Your task to perform on an android device: clear all cookies in the chrome app Image 0: 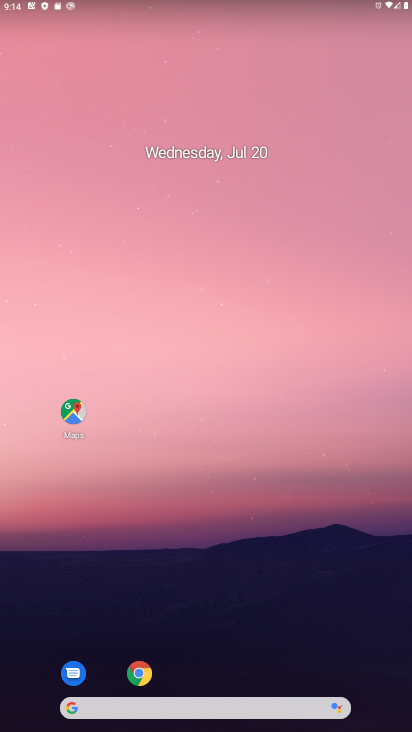
Step 0: drag from (247, 663) to (270, 136)
Your task to perform on an android device: clear all cookies in the chrome app Image 1: 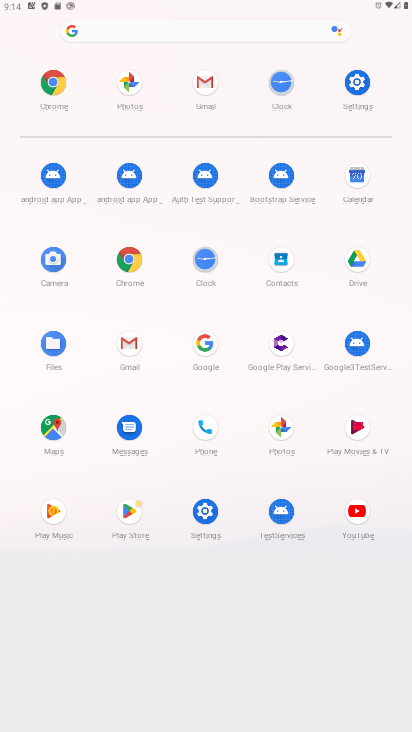
Step 1: click (129, 257)
Your task to perform on an android device: clear all cookies in the chrome app Image 2: 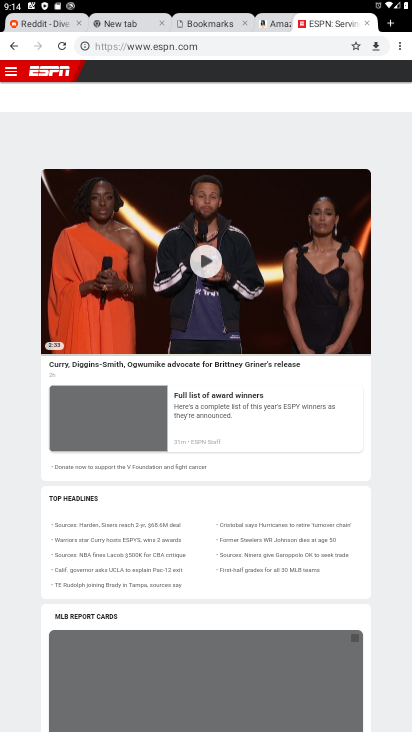
Step 2: click (399, 47)
Your task to perform on an android device: clear all cookies in the chrome app Image 3: 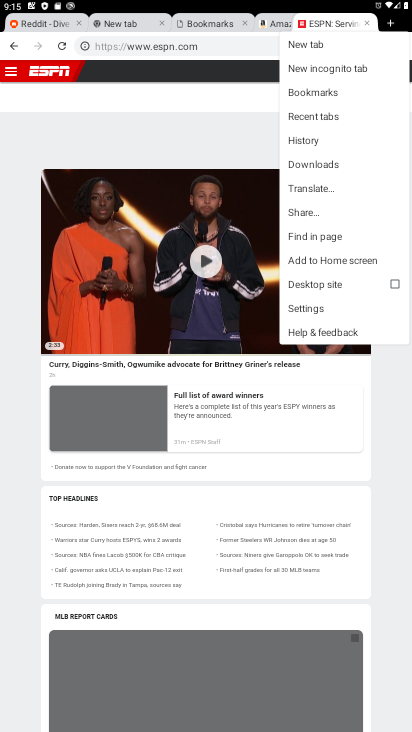
Step 3: click (308, 141)
Your task to perform on an android device: clear all cookies in the chrome app Image 4: 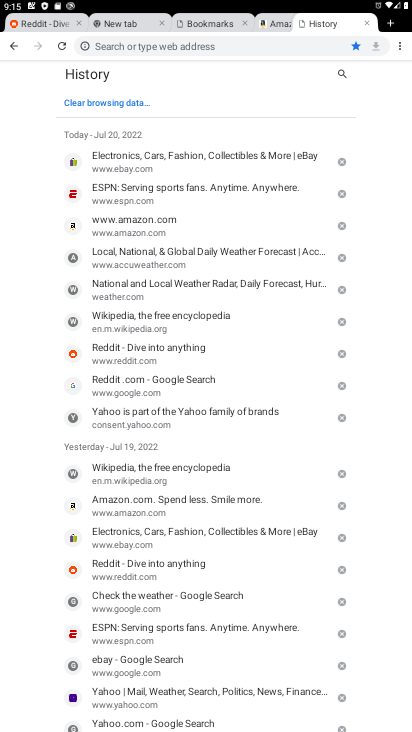
Step 4: click (401, 48)
Your task to perform on an android device: clear all cookies in the chrome app Image 5: 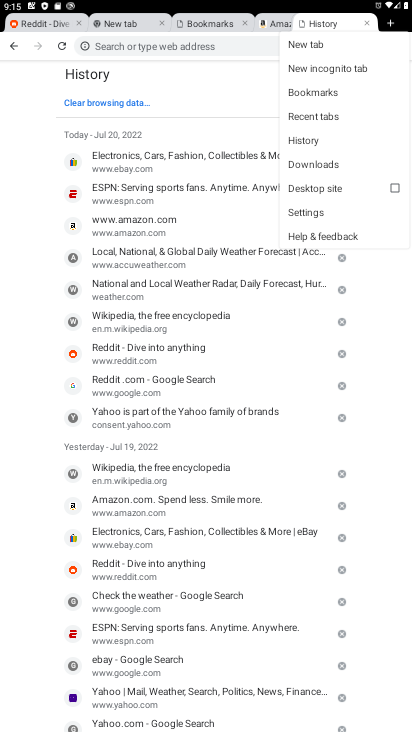
Step 5: click (300, 137)
Your task to perform on an android device: clear all cookies in the chrome app Image 6: 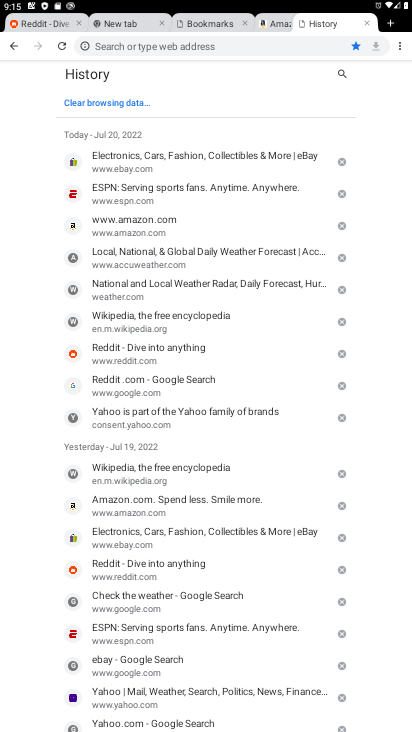
Step 6: click (109, 103)
Your task to perform on an android device: clear all cookies in the chrome app Image 7: 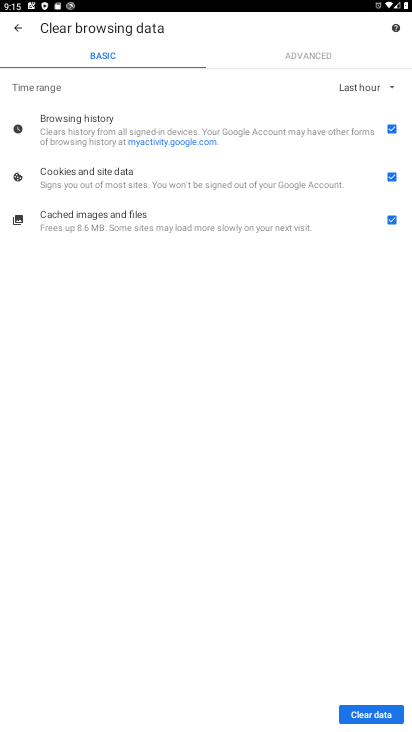
Step 7: click (390, 219)
Your task to perform on an android device: clear all cookies in the chrome app Image 8: 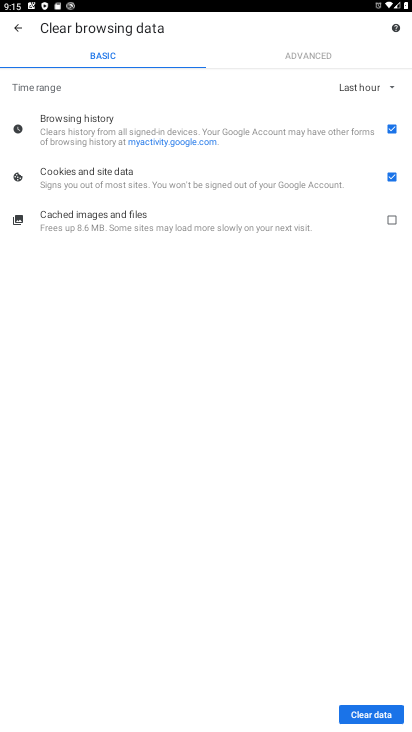
Step 8: click (397, 127)
Your task to perform on an android device: clear all cookies in the chrome app Image 9: 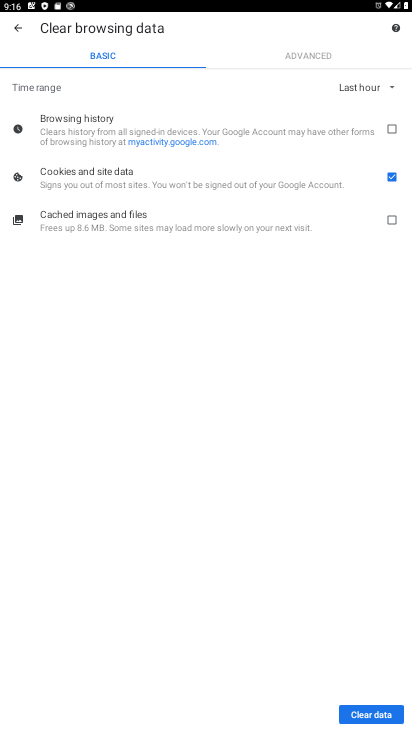
Step 9: click (364, 715)
Your task to perform on an android device: clear all cookies in the chrome app Image 10: 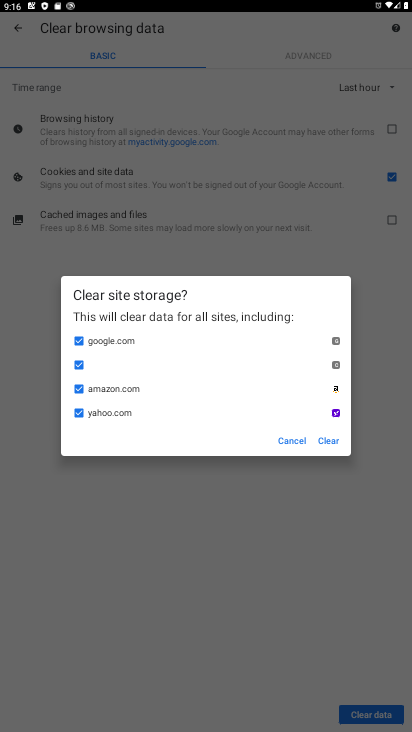
Step 10: click (319, 439)
Your task to perform on an android device: clear all cookies in the chrome app Image 11: 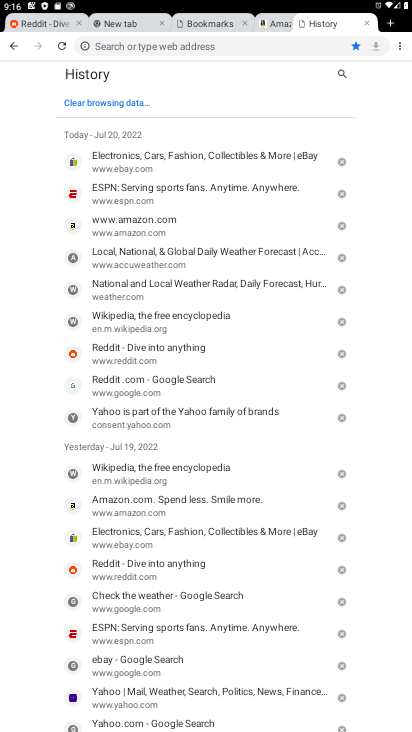
Step 11: task complete